Your task to perform on an android device: Go to Wikipedia Image 0: 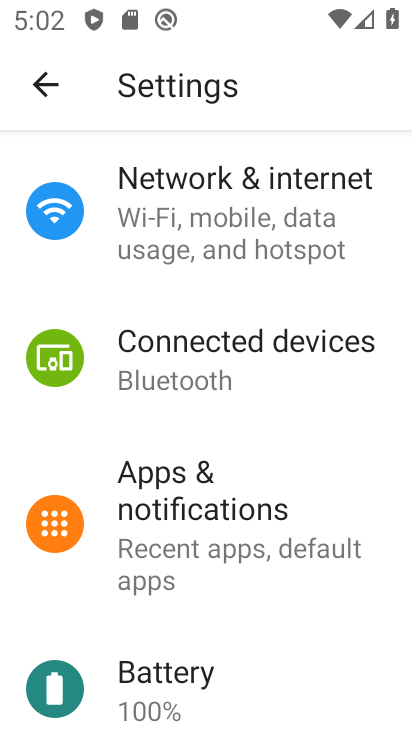
Step 0: press home button
Your task to perform on an android device: Go to Wikipedia Image 1: 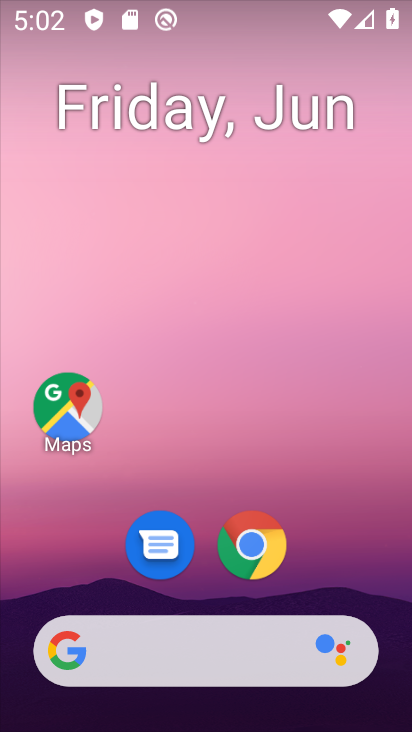
Step 1: drag from (179, 562) to (208, 249)
Your task to perform on an android device: Go to Wikipedia Image 2: 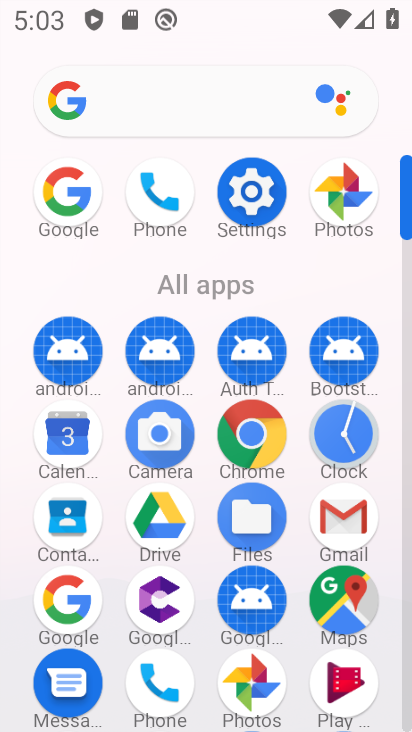
Step 2: click (247, 440)
Your task to perform on an android device: Go to Wikipedia Image 3: 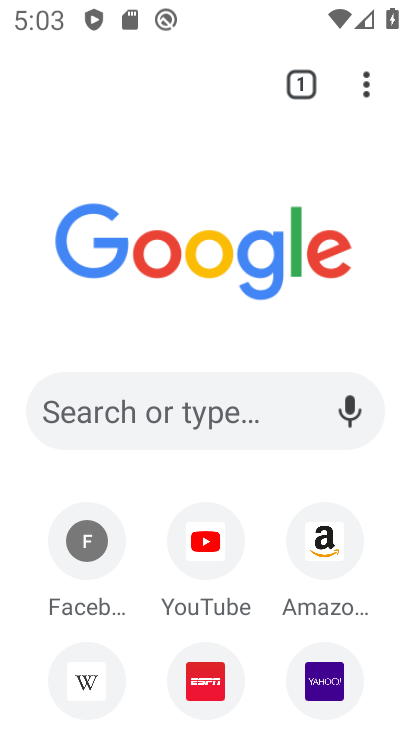
Step 3: click (86, 676)
Your task to perform on an android device: Go to Wikipedia Image 4: 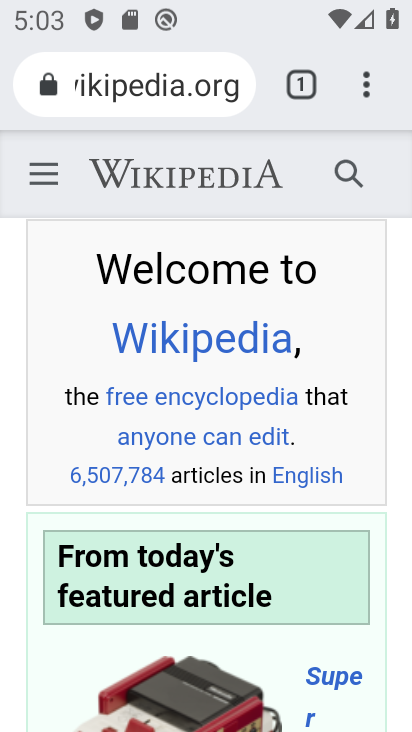
Step 4: task complete